Your task to perform on an android device: open app "Venmo" Image 0: 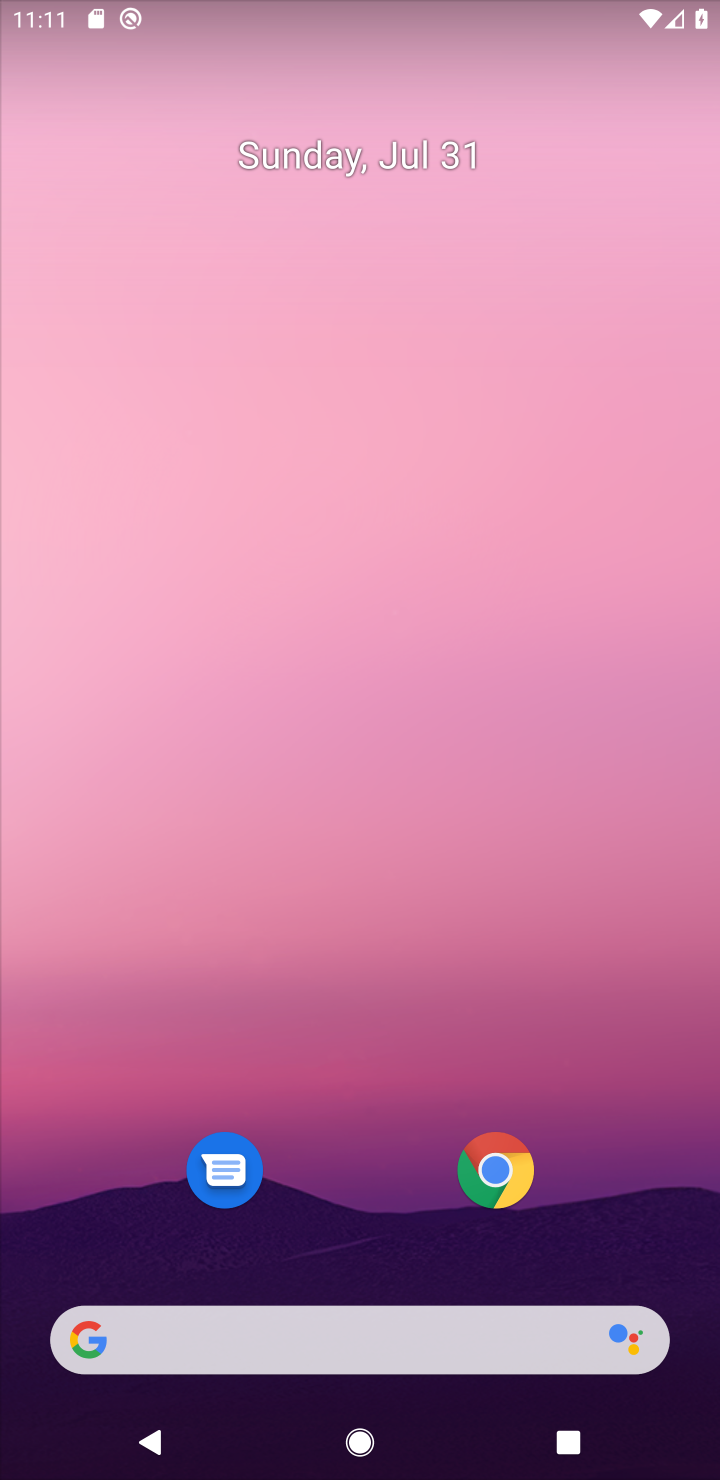
Step 0: drag from (424, 515) to (313, 39)
Your task to perform on an android device: open app "Venmo" Image 1: 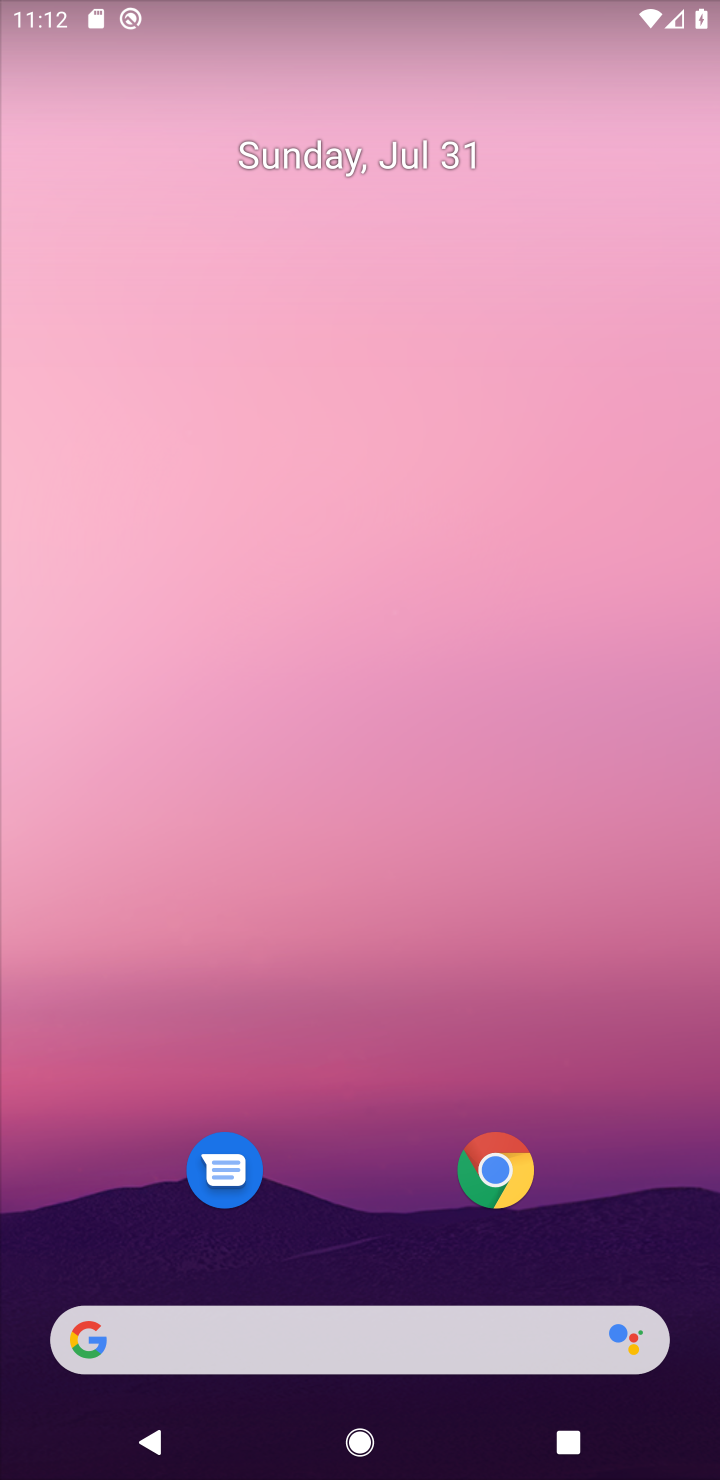
Step 1: drag from (611, 882) to (459, 23)
Your task to perform on an android device: open app "Venmo" Image 2: 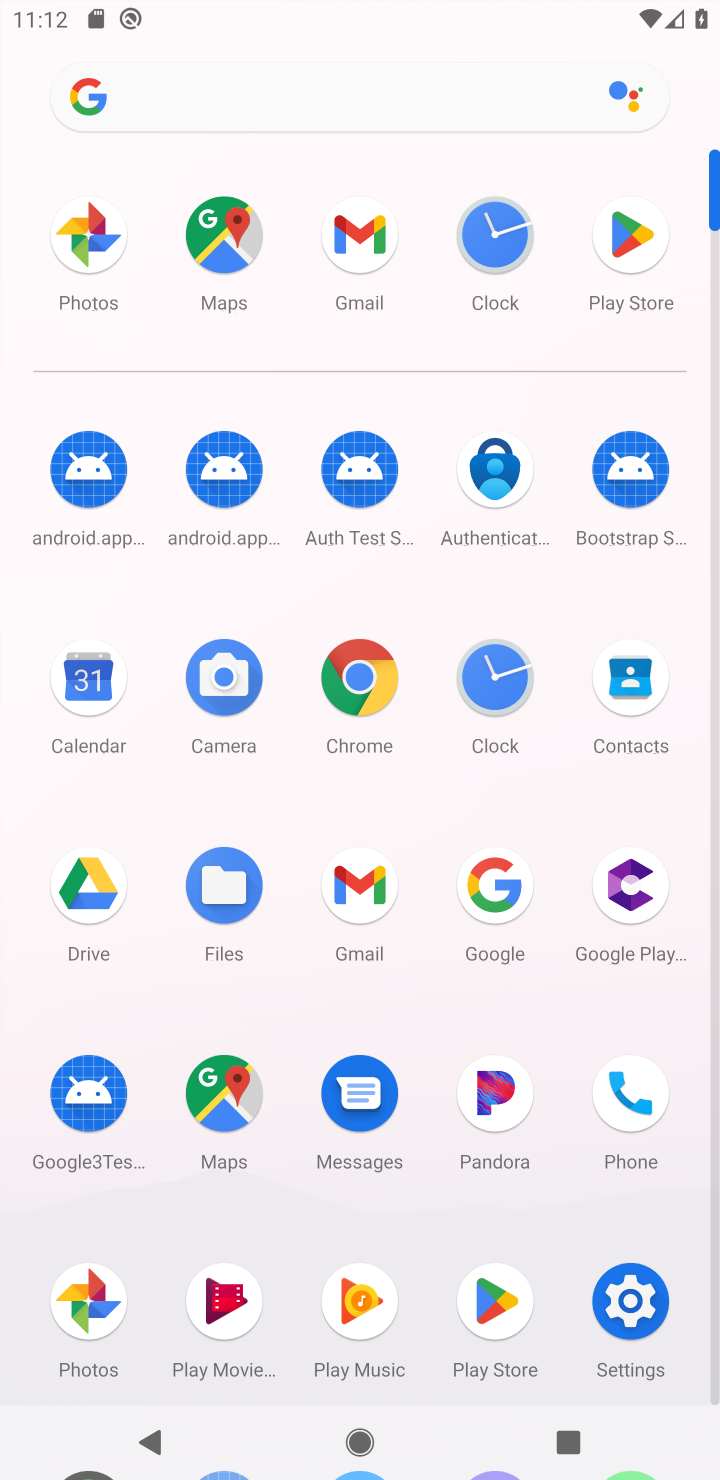
Step 2: click (625, 246)
Your task to perform on an android device: open app "Venmo" Image 3: 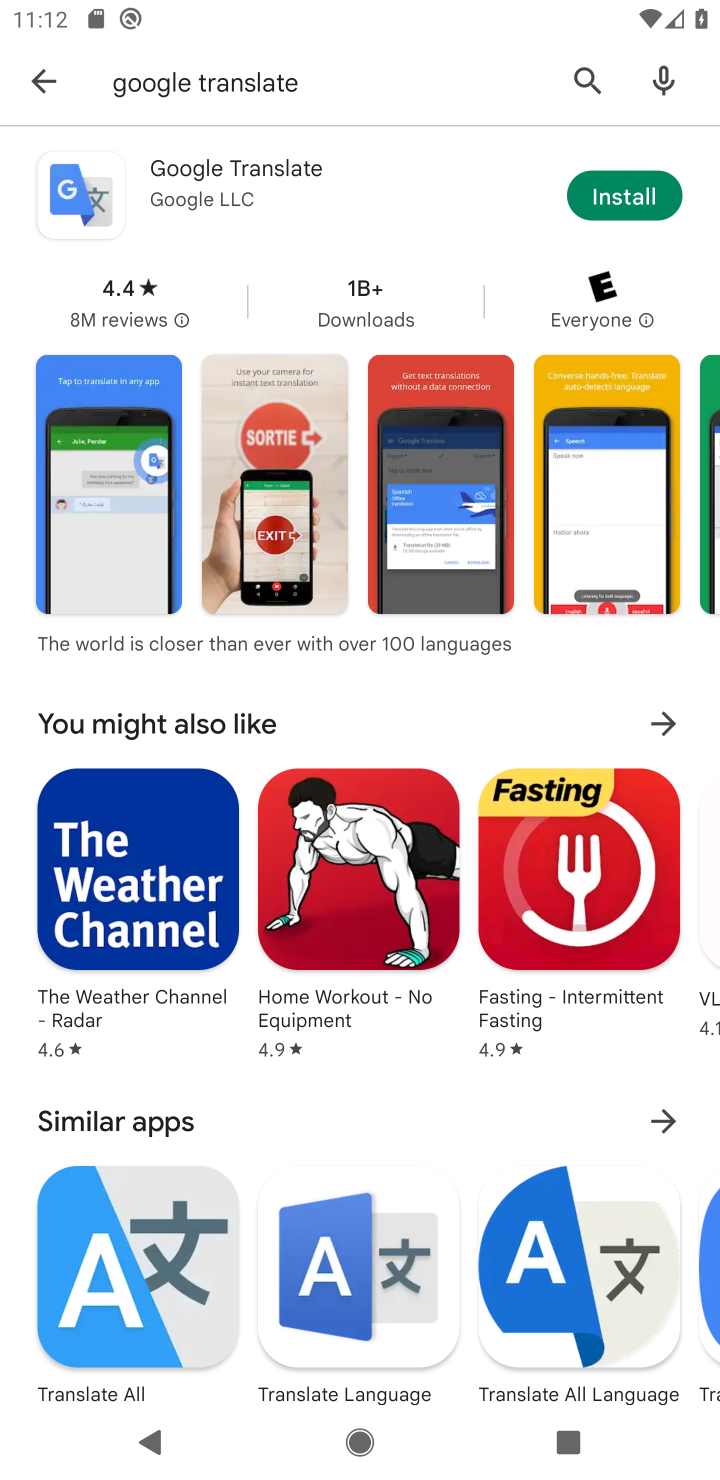
Step 3: press back button
Your task to perform on an android device: open app "Venmo" Image 4: 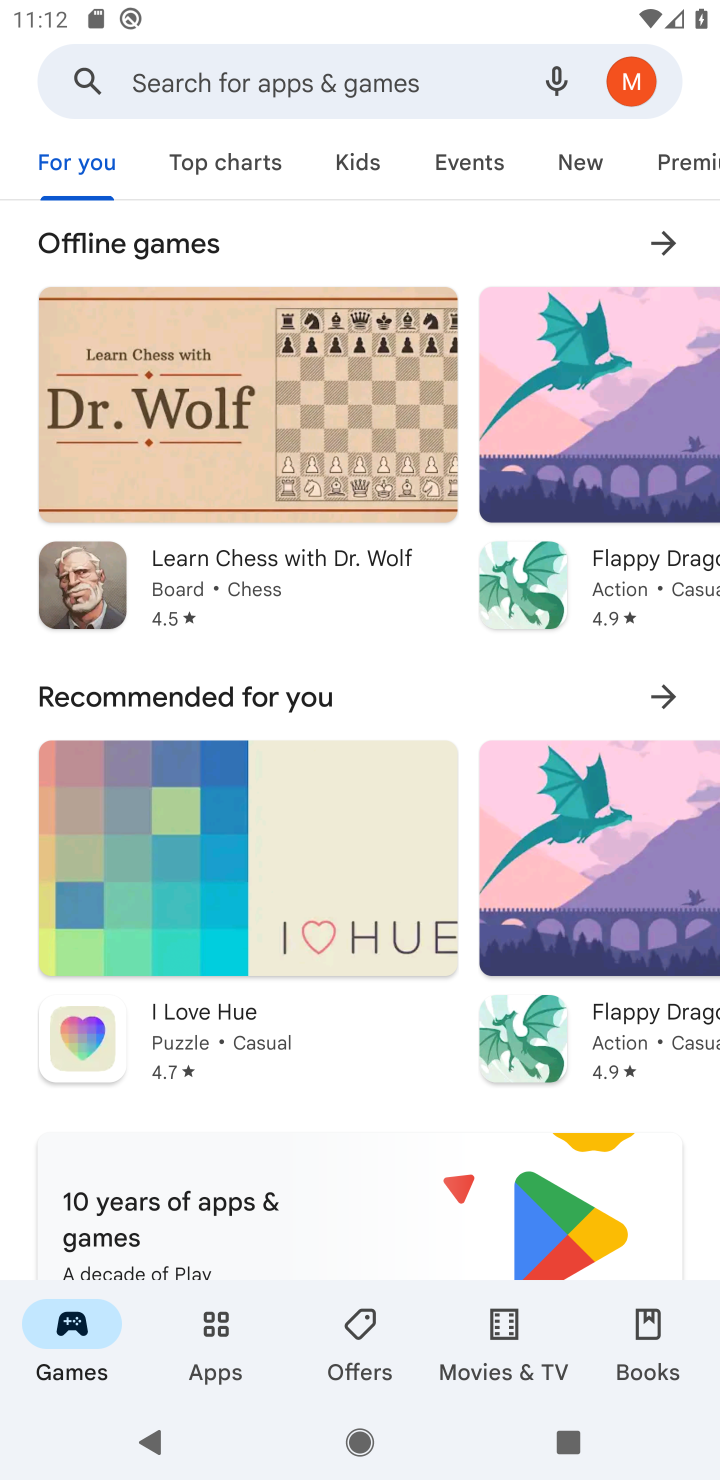
Step 4: click (212, 91)
Your task to perform on an android device: open app "Venmo" Image 5: 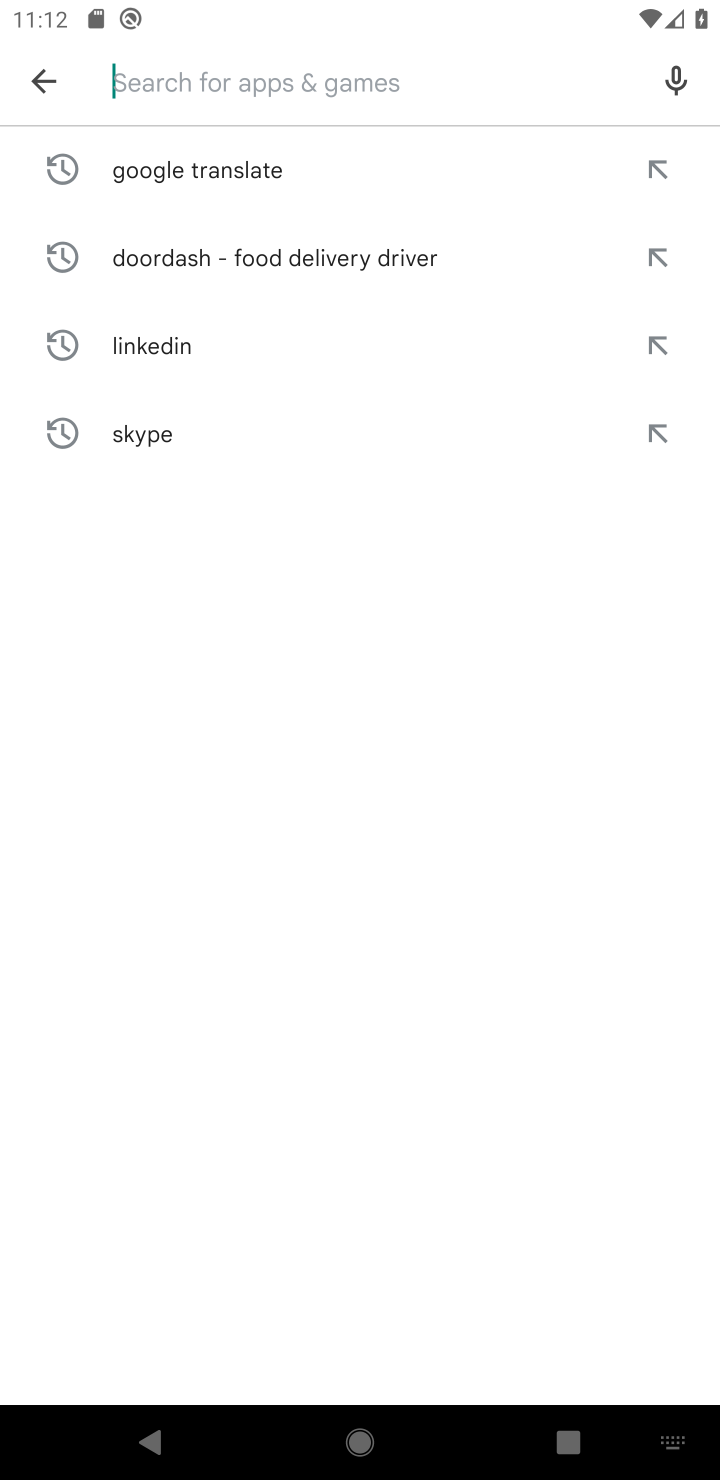
Step 5: type "Venmo"
Your task to perform on an android device: open app "Venmo" Image 6: 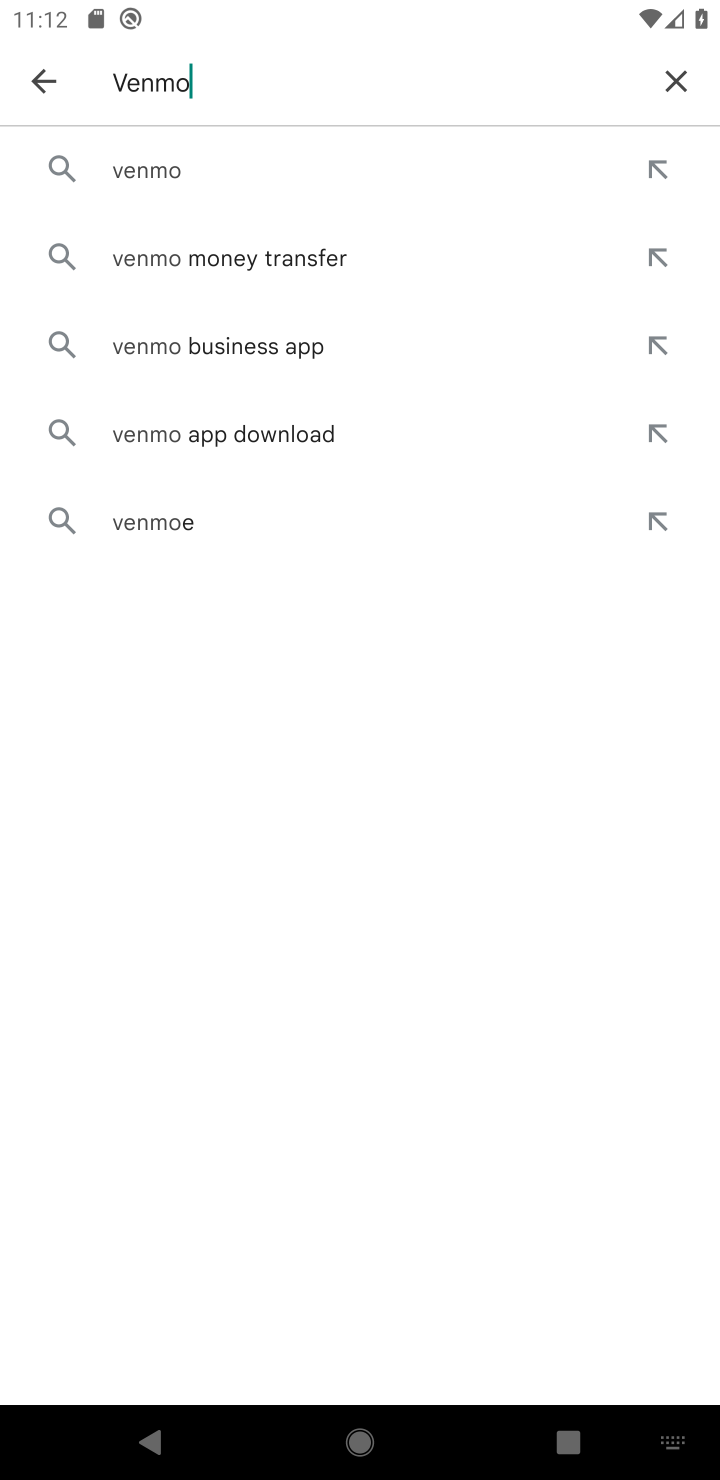
Step 6: click (147, 162)
Your task to perform on an android device: open app "Venmo" Image 7: 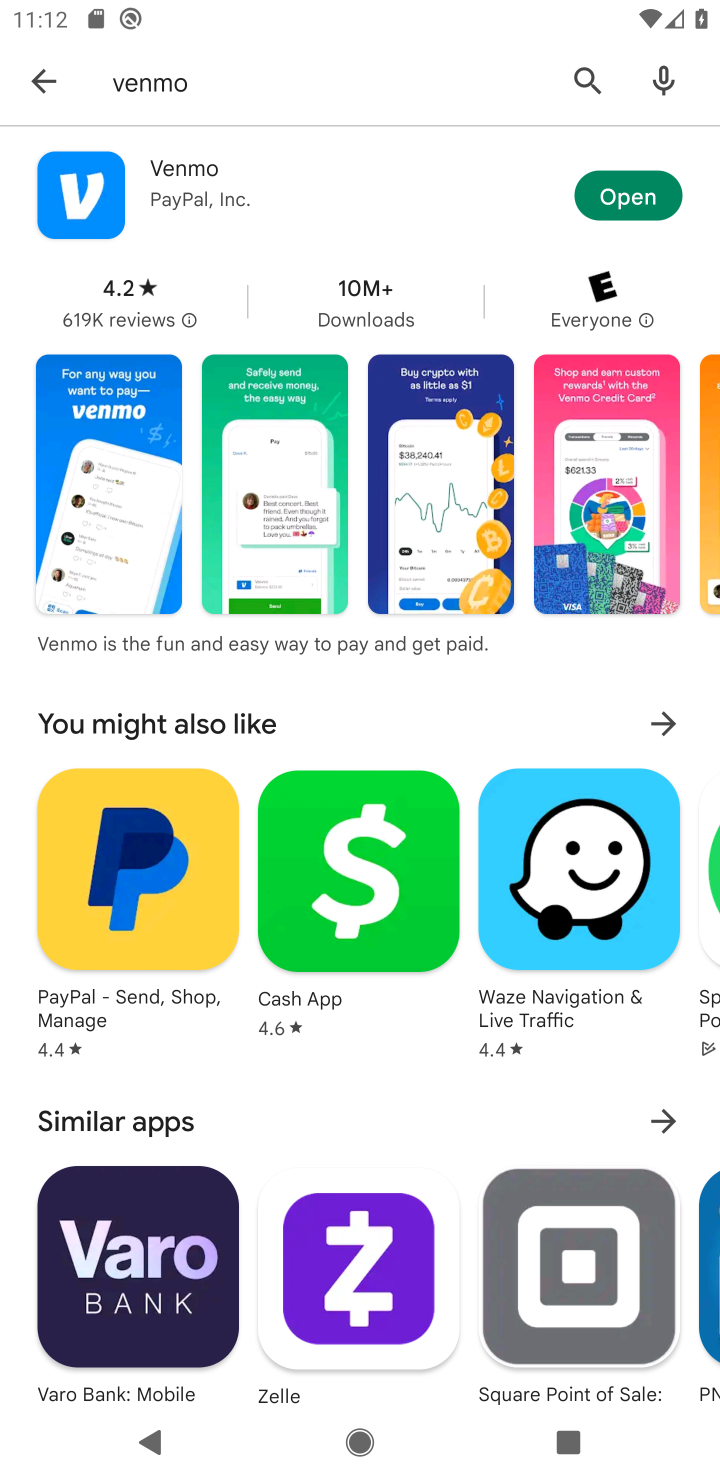
Step 7: click (603, 186)
Your task to perform on an android device: open app "Venmo" Image 8: 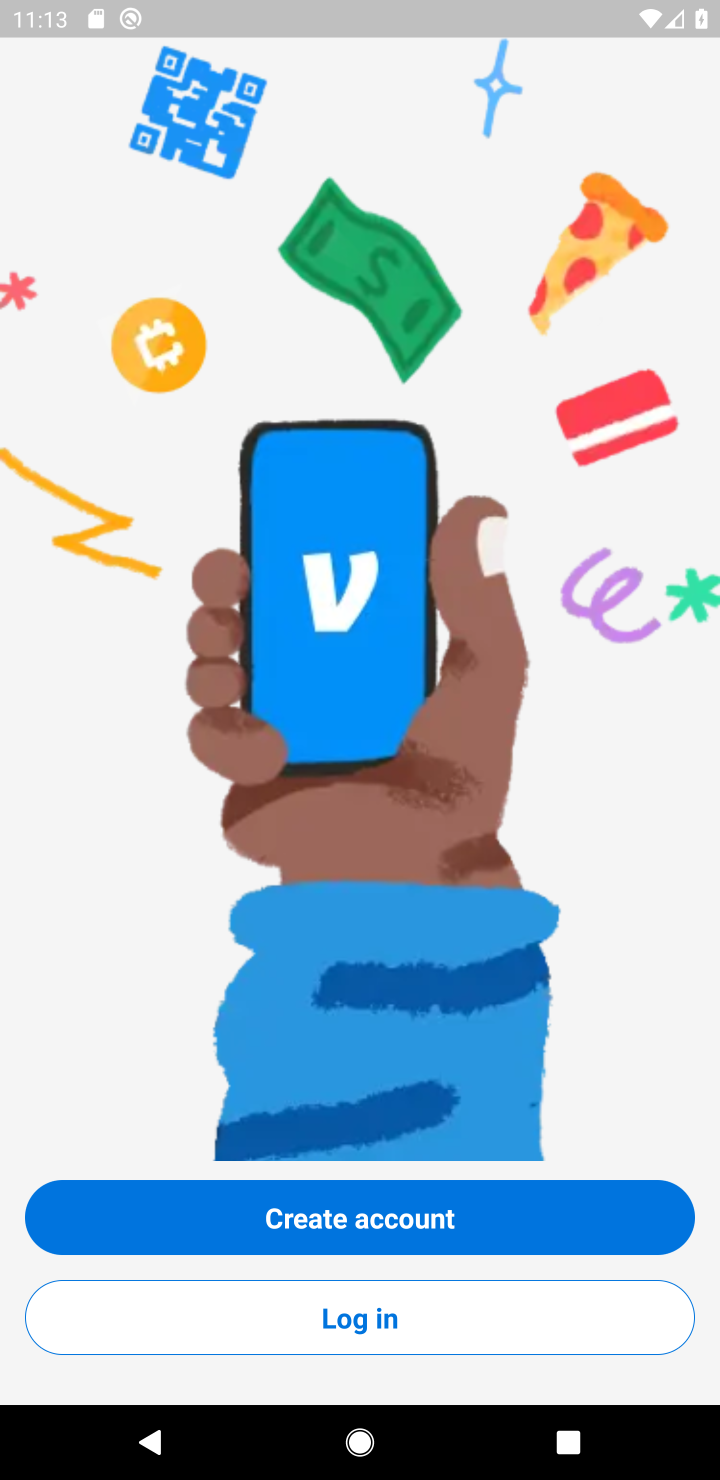
Step 8: task complete